Your task to perform on an android device: Search for usb-c to usb-b on target, select the first entry, and add it to the cart. Image 0: 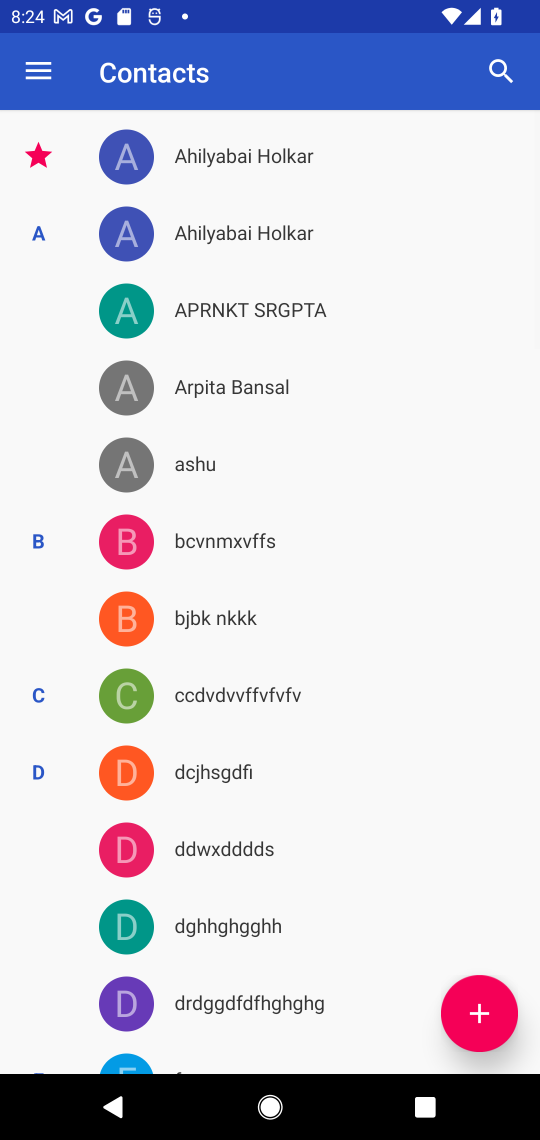
Step 0: press home button
Your task to perform on an android device: Search for usb-c to usb-b on target, select the first entry, and add it to the cart. Image 1: 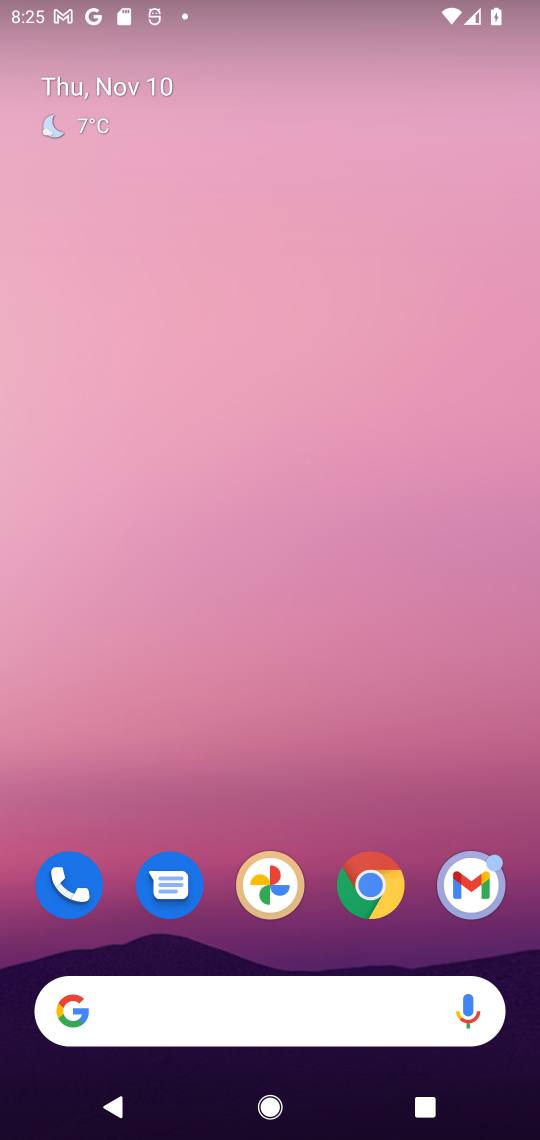
Step 1: click (373, 884)
Your task to perform on an android device: Search for usb-c to usb-b on target, select the first entry, and add it to the cart. Image 2: 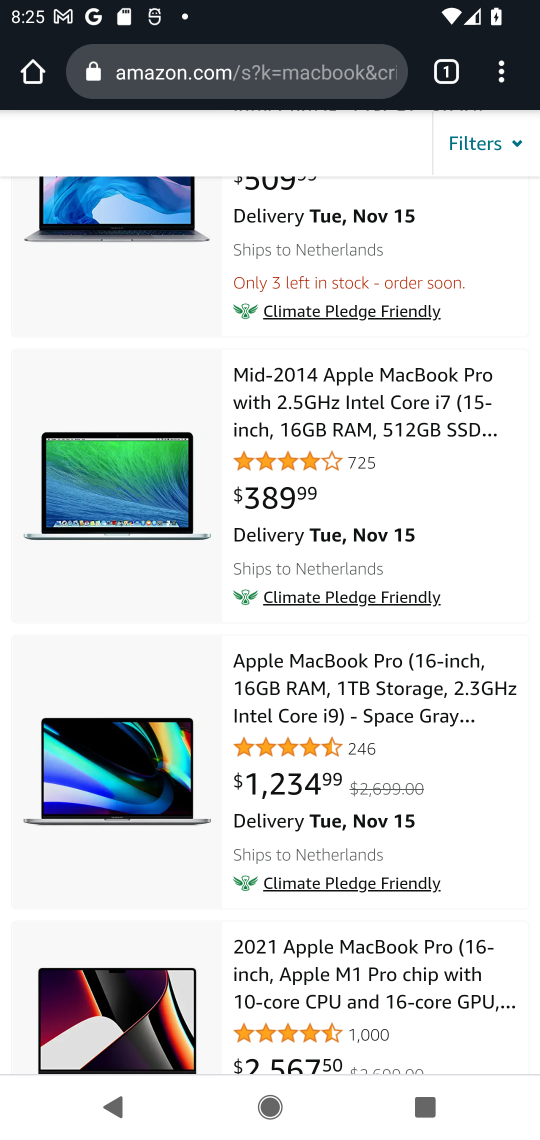
Step 2: click (276, 66)
Your task to perform on an android device: Search for usb-c to usb-b on target, select the first entry, and add it to the cart. Image 3: 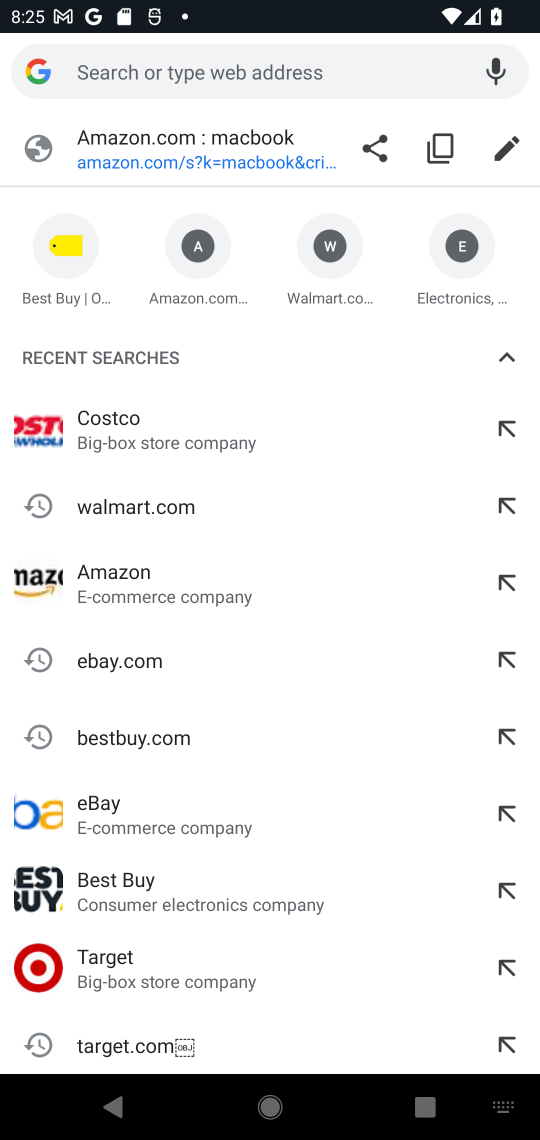
Step 3: click (214, 978)
Your task to perform on an android device: Search for usb-c to usb-b on target, select the first entry, and add it to the cart. Image 4: 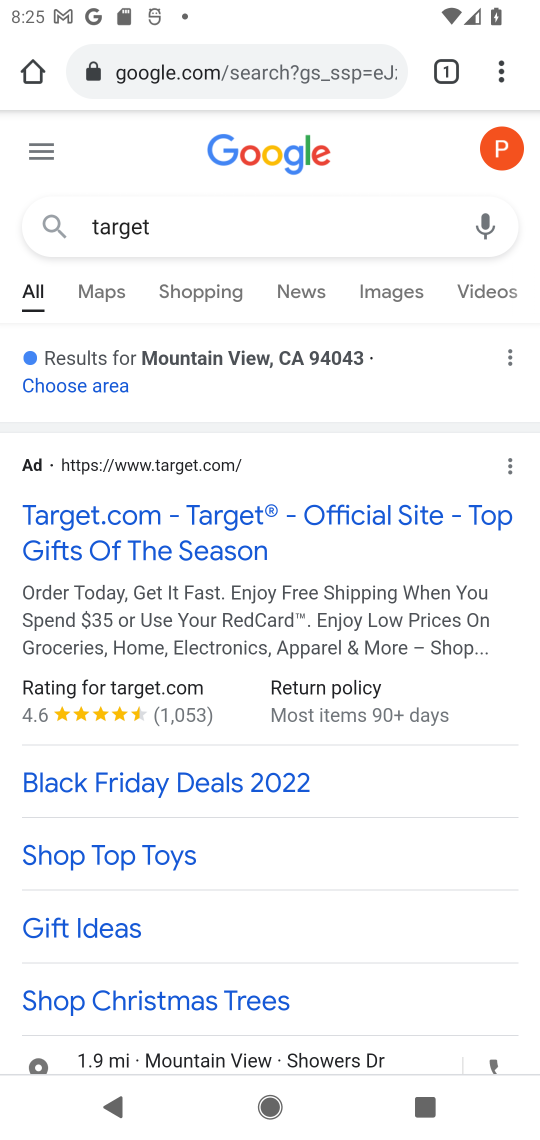
Step 4: click (218, 467)
Your task to perform on an android device: Search for usb-c to usb-b on target, select the first entry, and add it to the cart. Image 5: 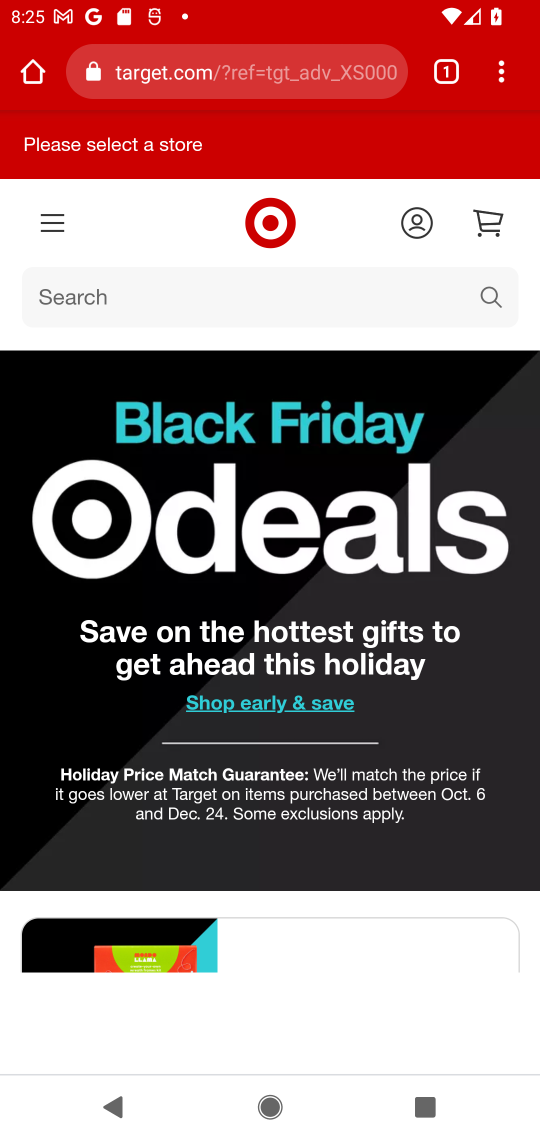
Step 5: click (488, 290)
Your task to perform on an android device: Search for usb-c to usb-b on target, select the first entry, and add it to the cart. Image 6: 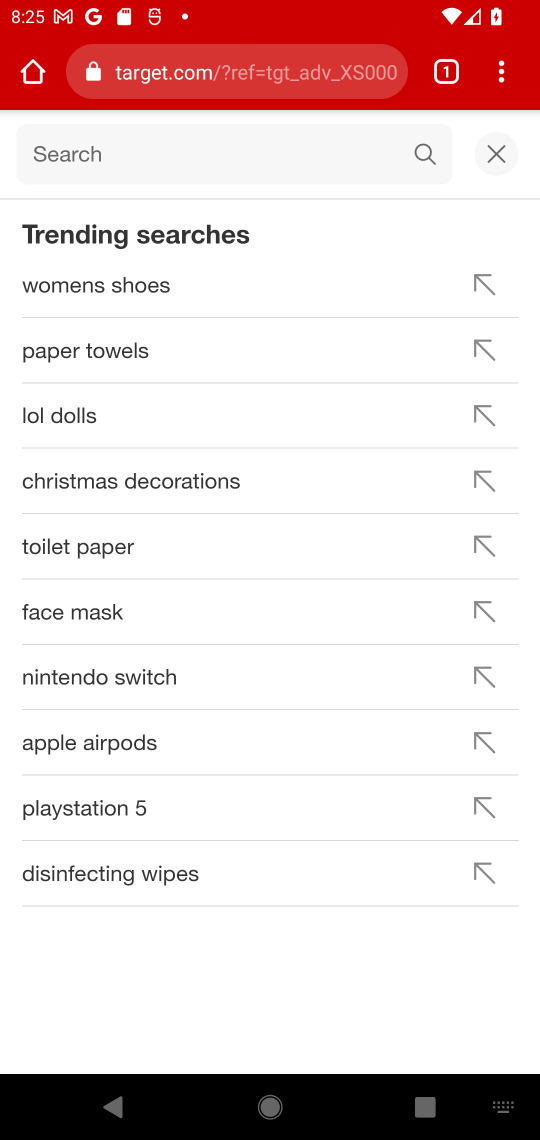
Step 6: type "usb-c to usb-b "
Your task to perform on an android device: Search for usb-c to usb-b on target, select the first entry, and add it to the cart. Image 7: 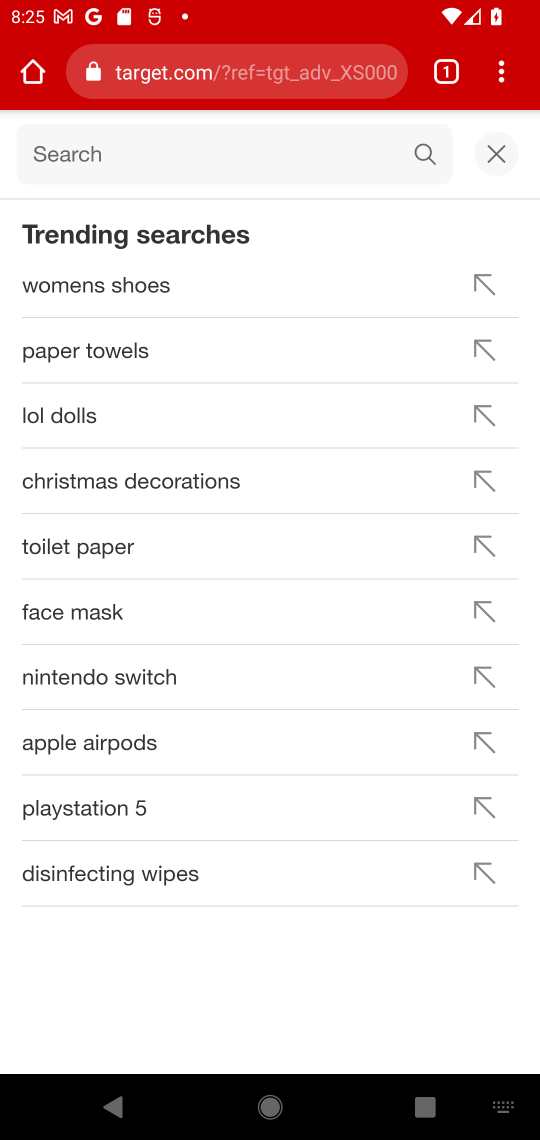
Step 7: press enter
Your task to perform on an android device: Search for usb-c to usb-b on target, select the first entry, and add it to the cart. Image 8: 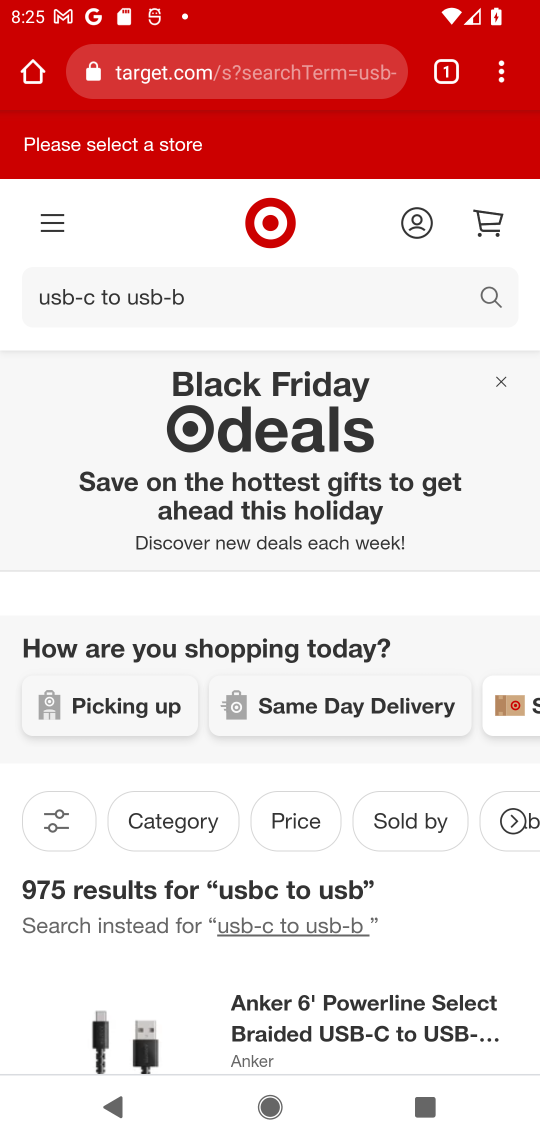
Step 8: drag from (424, 987) to (445, 580)
Your task to perform on an android device: Search for usb-c to usb-b on target, select the first entry, and add it to the cart. Image 9: 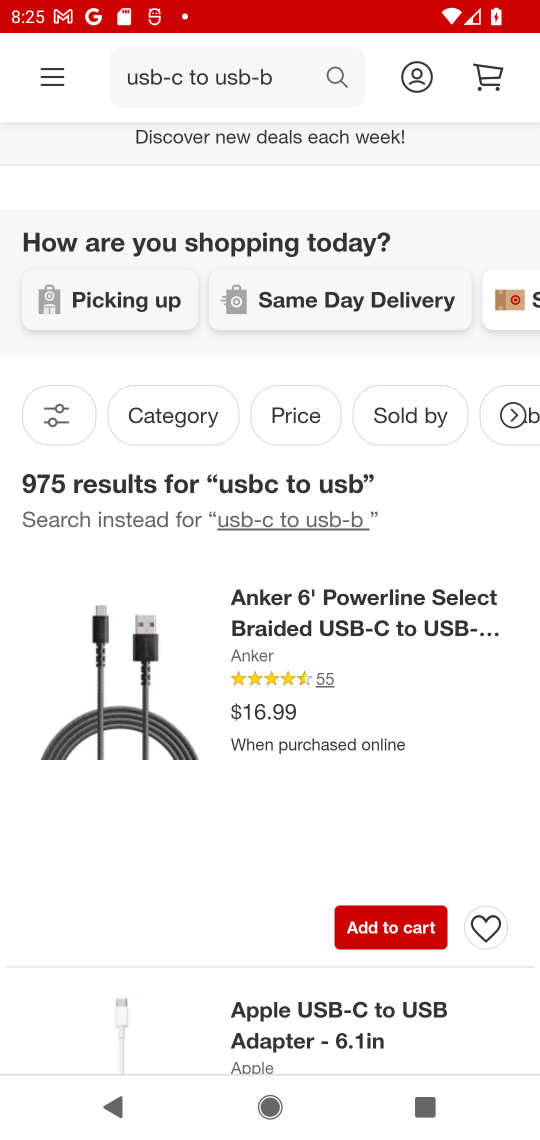
Step 9: click (142, 687)
Your task to perform on an android device: Search for usb-c to usb-b on target, select the first entry, and add it to the cart. Image 10: 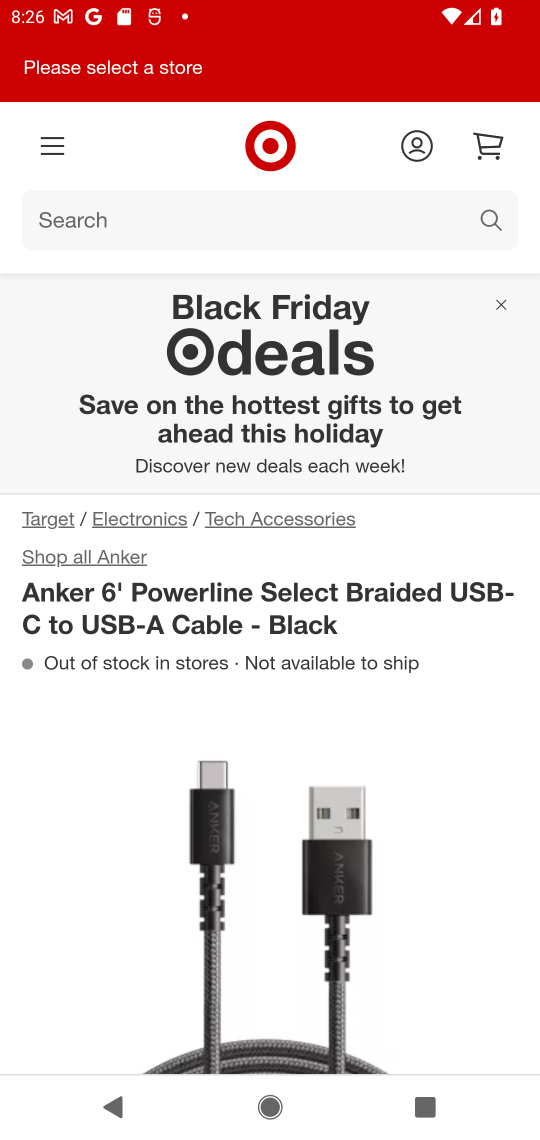
Step 10: drag from (230, 705) to (298, 302)
Your task to perform on an android device: Search for usb-c to usb-b on target, select the first entry, and add it to the cart. Image 11: 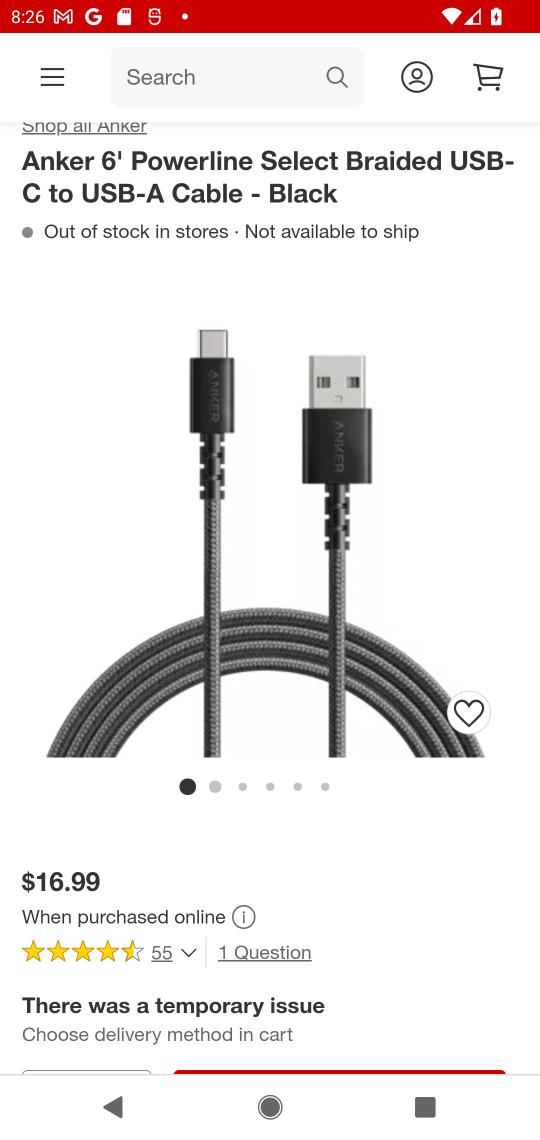
Step 11: press back button
Your task to perform on an android device: Search for usb-c to usb-b on target, select the first entry, and add it to the cart. Image 12: 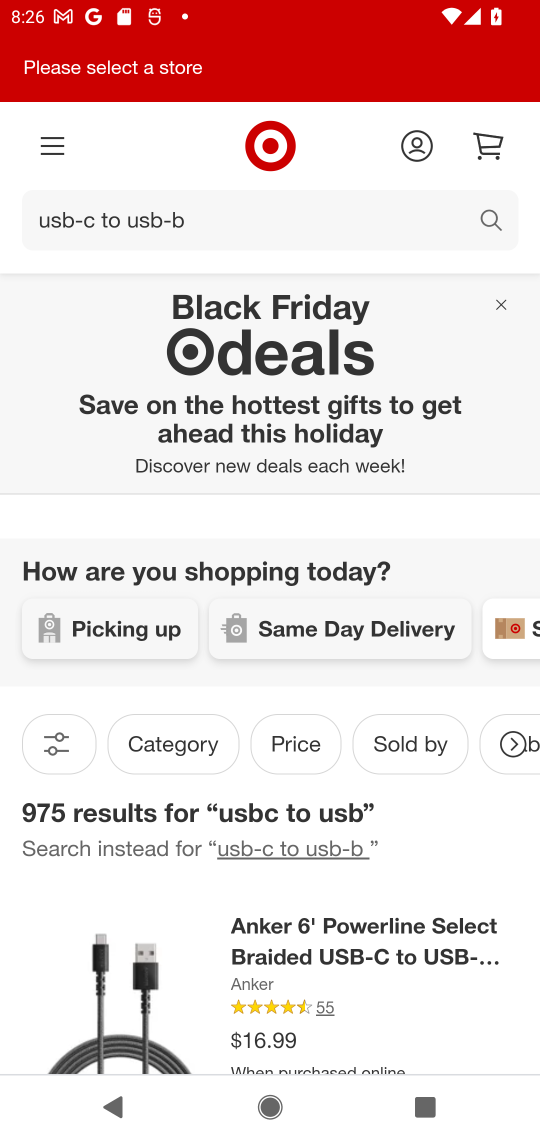
Step 12: drag from (313, 979) to (428, 129)
Your task to perform on an android device: Search for usb-c to usb-b on target, select the first entry, and add it to the cart. Image 13: 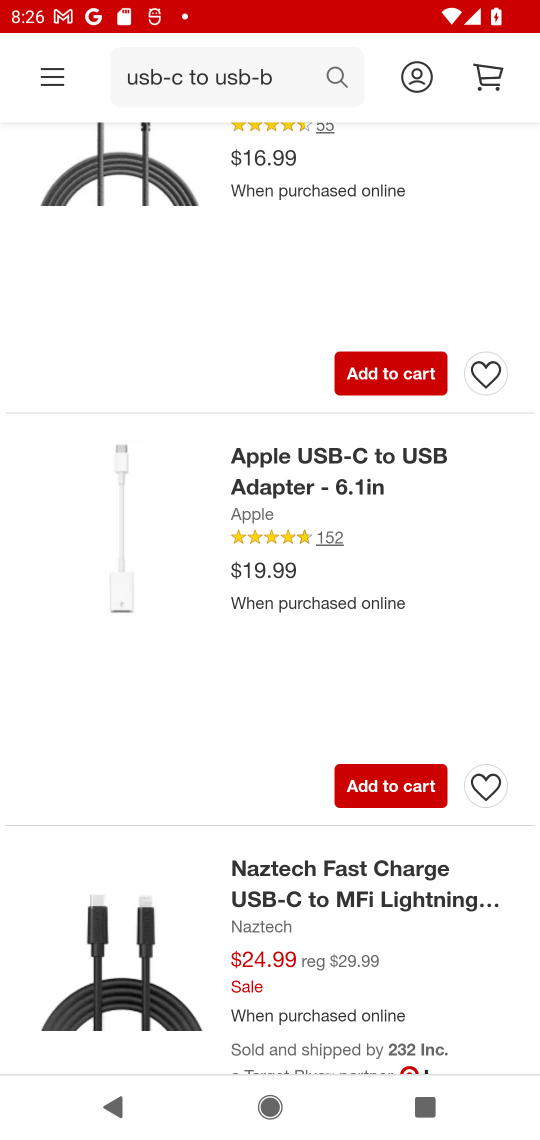
Step 13: drag from (412, 620) to (412, 167)
Your task to perform on an android device: Search for usb-c to usb-b on target, select the first entry, and add it to the cart. Image 14: 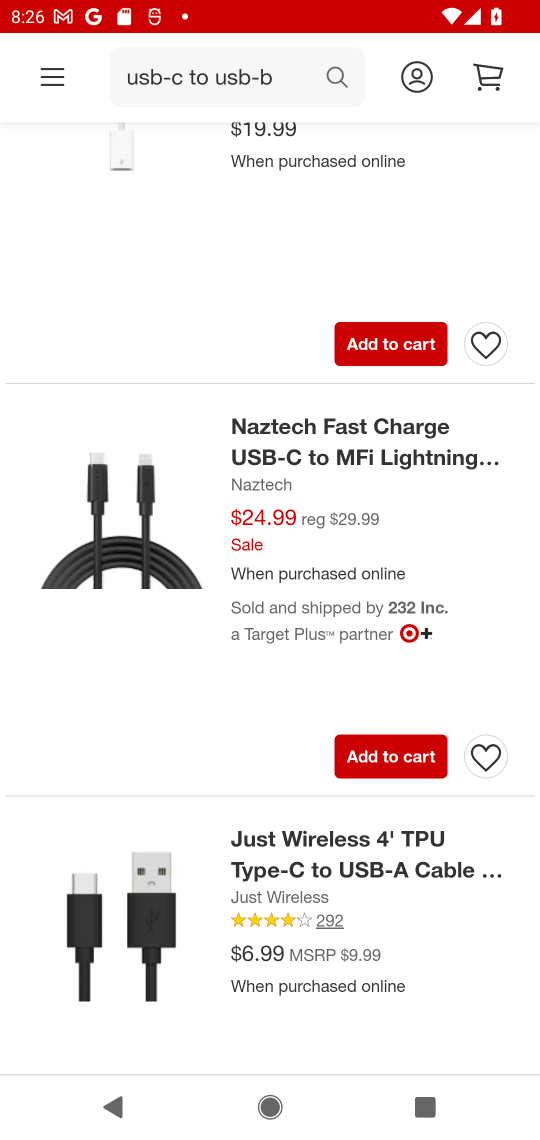
Step 14: drag from (438, 950) to (421, 387)
Your task to perform on an android device: Search for usb-c to usb-b on target, select the first entry, and add it to the cart. Image 15: 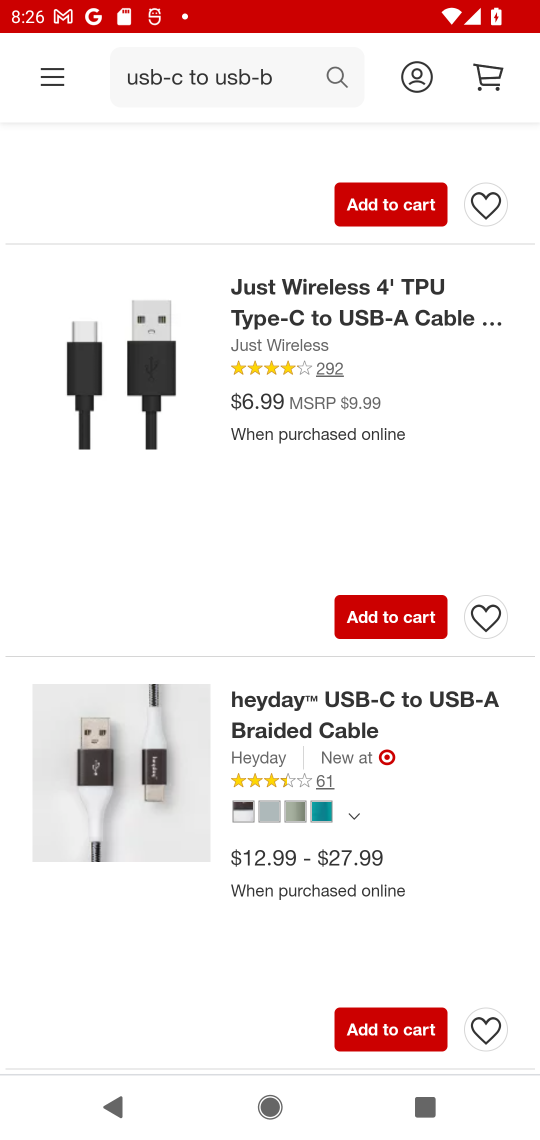
Step 15: drag from (495, 843) to (494, 434)
Your task to perform on an android device: Search for usb-c to usb-b on target, select the first entry, and add it to the cart. Image 16: 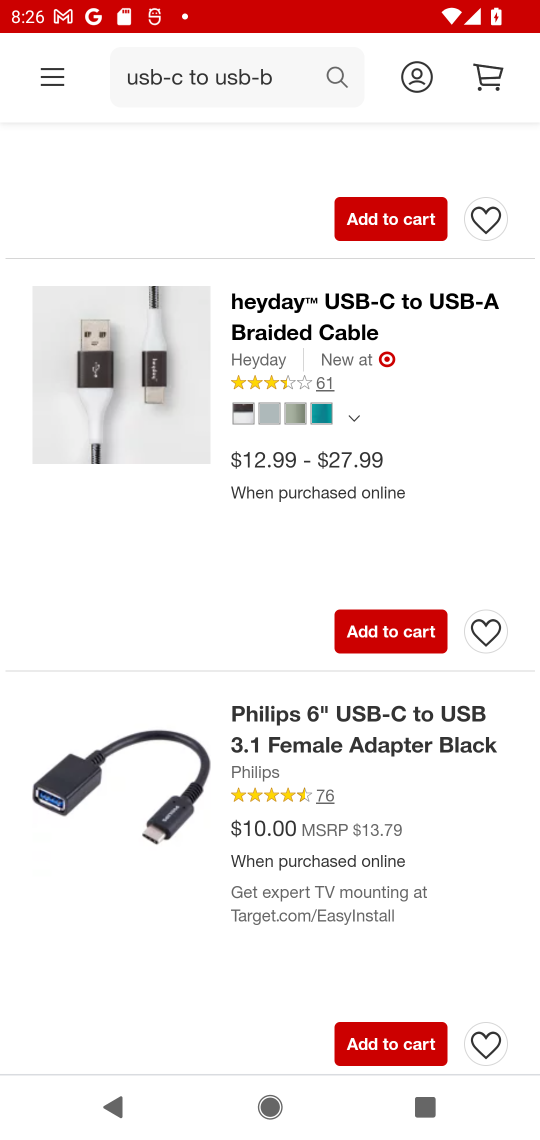
Step 16: drag from (455, 867) to (428, 384)
Your task to perform on an android device: Search for usb-c to usb-b on target, select the first entry, and add it to the cart. Image 17: 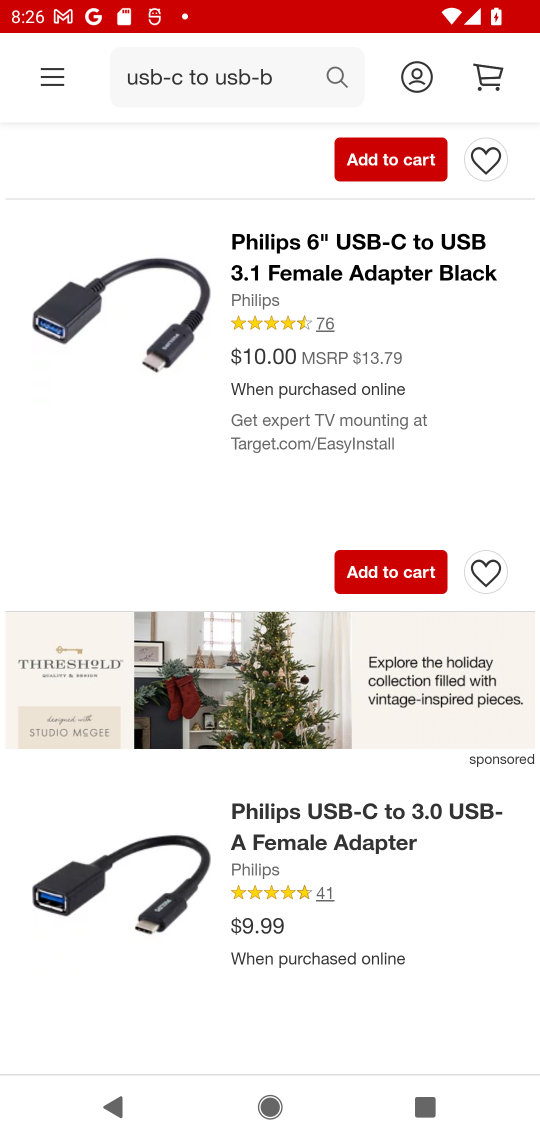
Step 17: drag from (455, 912) to (437, 270)
Your task to perform on an android device: Search for usb-c to usb-b on target, select the first entry, and add it to the cart. Image 18: 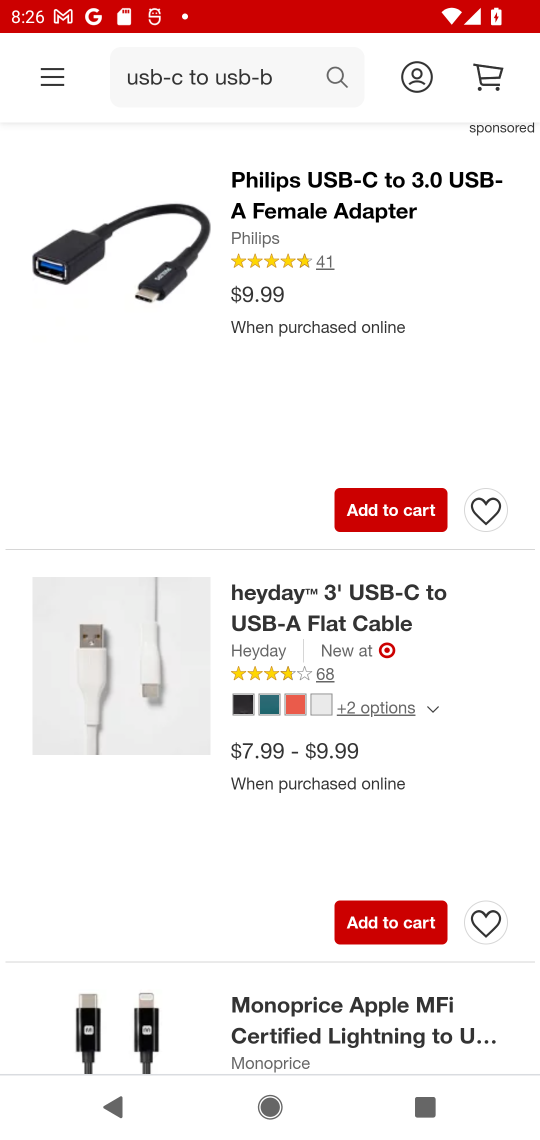
Step 18: drag from (464, 778) to (437, 498)
Your task to perform on an android device: Search for usb-c to usb-b on target, select the first entry, and add it to the cart. Image 19: 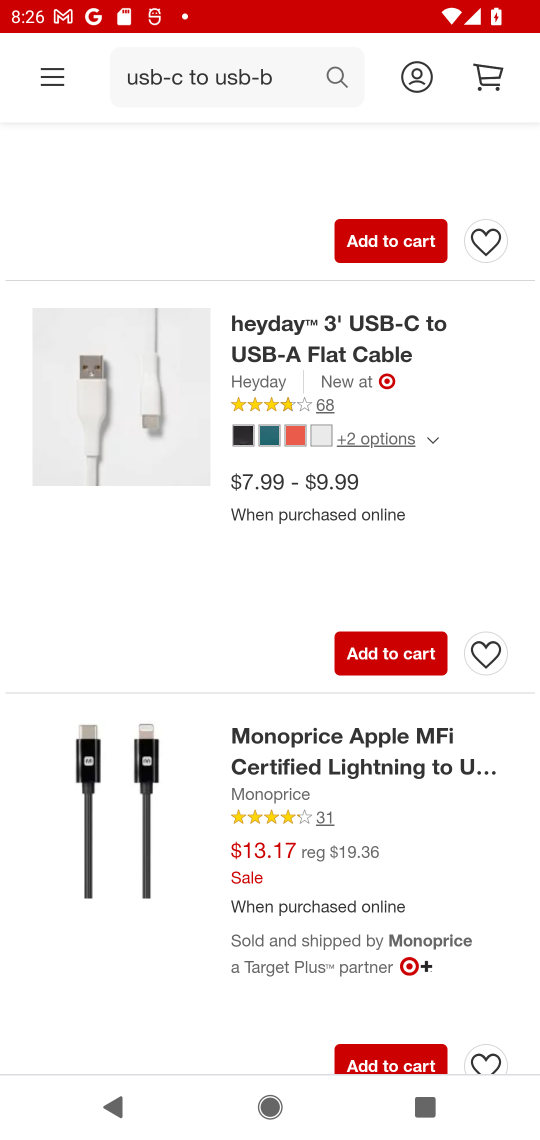
Step 19: drag from (411, 862) to (452, 443)
Your task to perform on an android device: Search for usb-c to usb-b on target, select the first entry, and add it to the cart. Image 20: 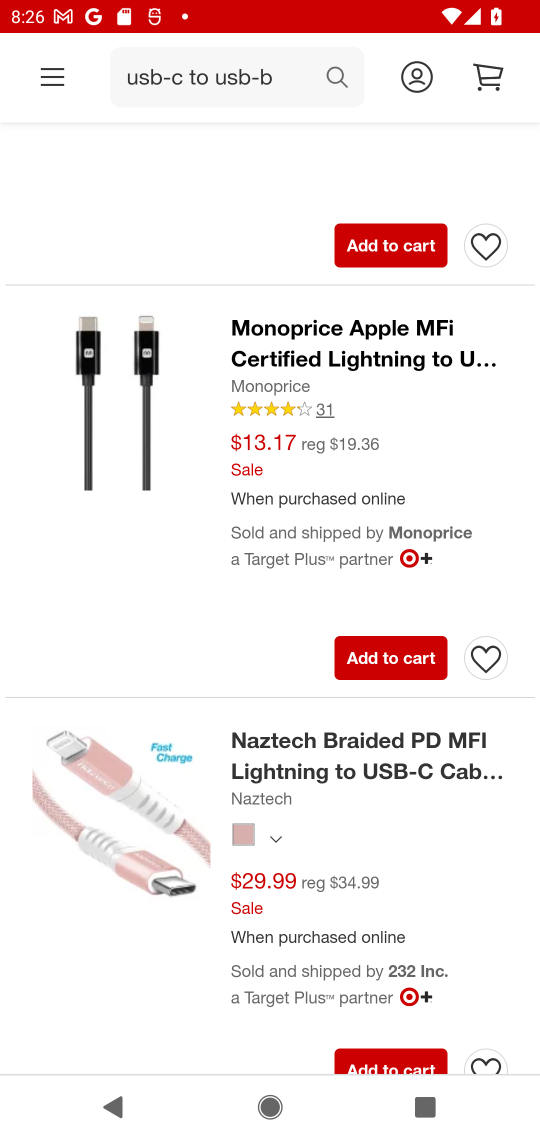
Step 20: drag from (446, 798) to (464, 345)
Your task to perform on an android device: Search for usb-c to usb-b on target, select the first entry, and add it to the cart. Image 21: 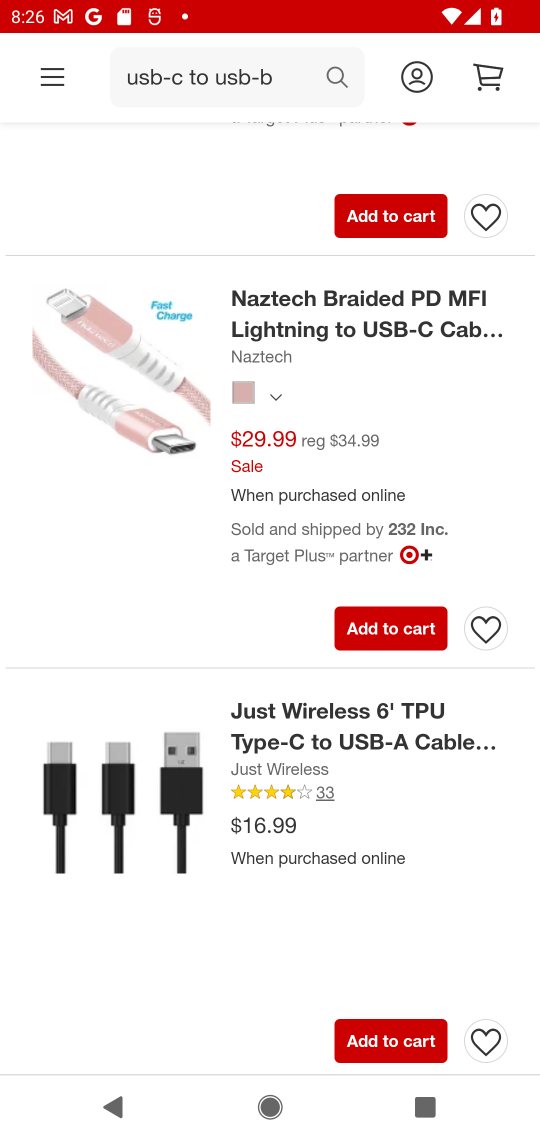
Step 21: drag from (488, 855) to (438, 433)
Your task to perform on an android device: Search for usb-c to usb-b on target, select the first entry, and add it to the cart. Image 22: 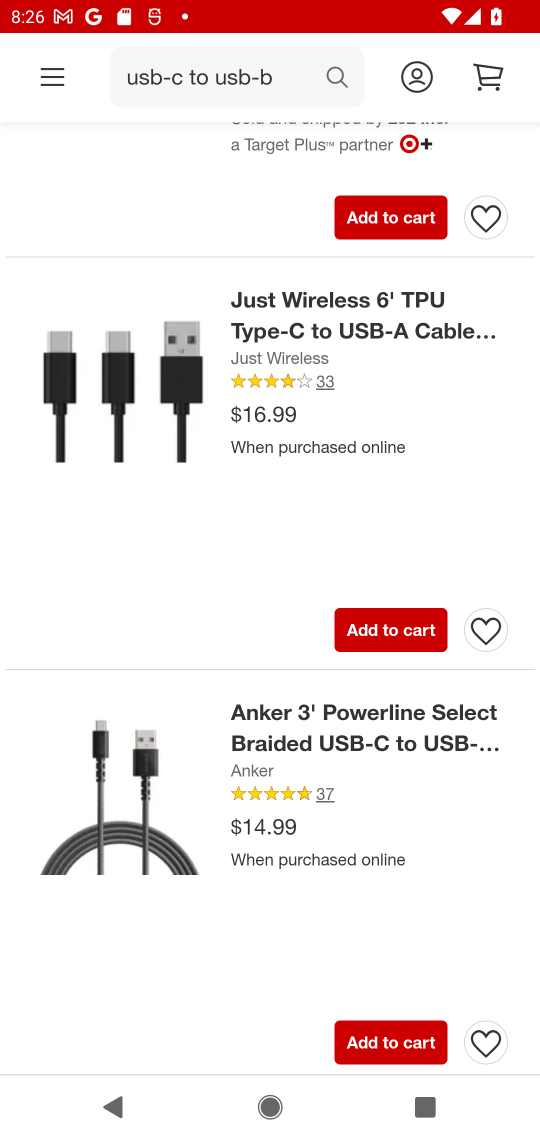
Step 22: click (127, 761)
Your task to perform on an android device: Search for usb-c to usb-b on target, select the first entry, and add it to the cart. Image 23: 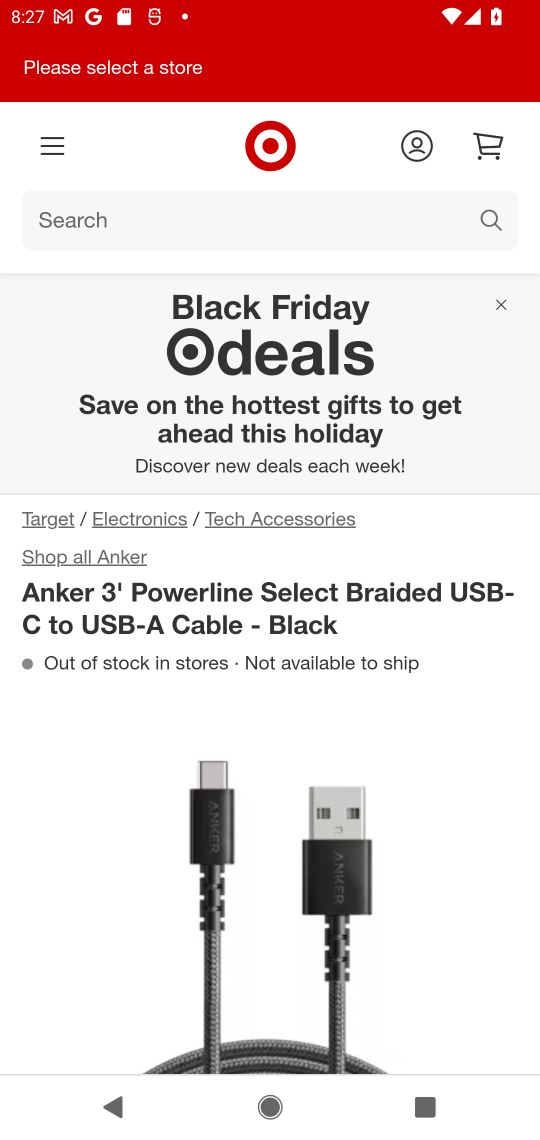
Step 23: task complete